Your task to perform on an android device: change the upload size in google photos Image 0: 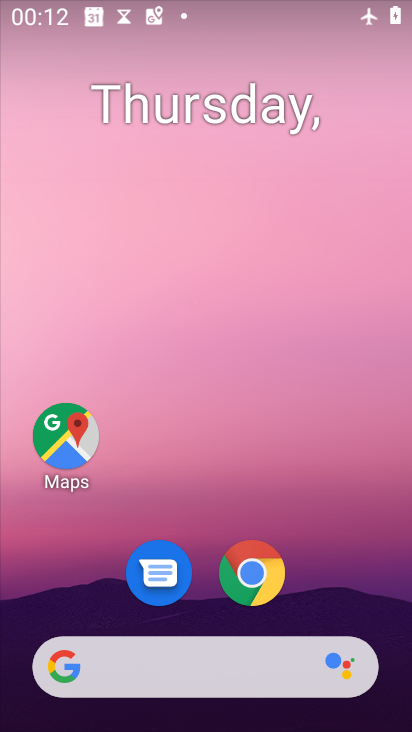
Step 0: drag from (327, 544) to (316, 174)
Your task to perform on an android device: change the upload size in google photos Image 1: 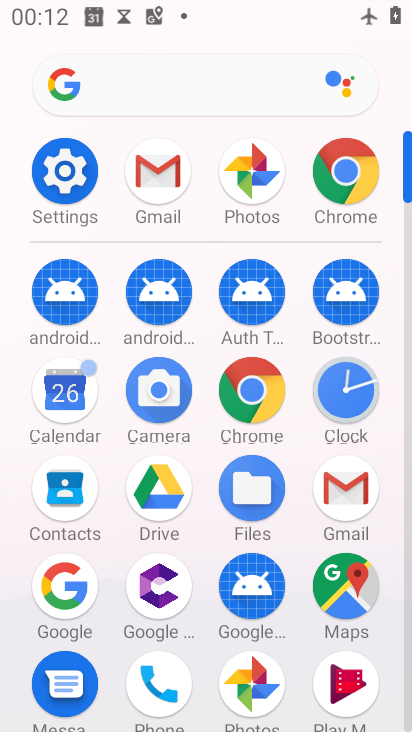
Step 1: click (242, 684)
Your task to perform on an android device: change the upload size in google photos Image 2: 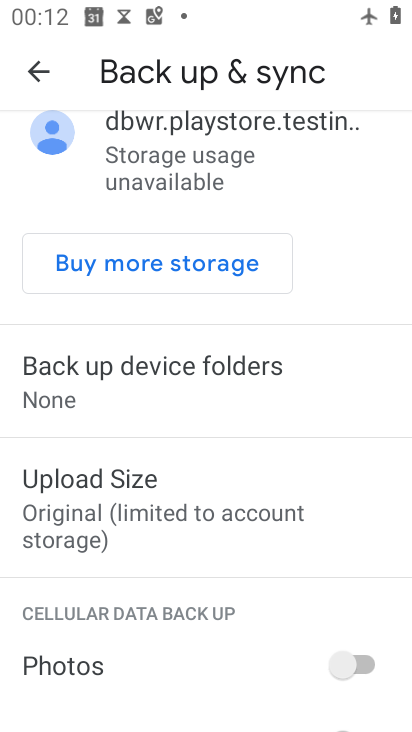
Step 2: click (182, 517)
Your task to perform on an android device: change the upload size in google photos Image 3: 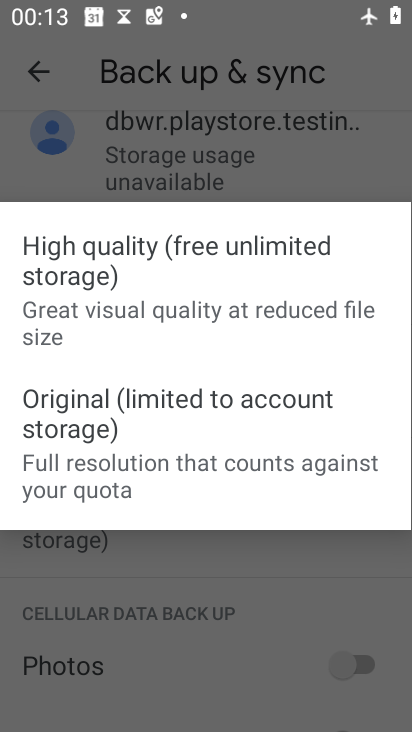
Step 3: click (148, 280)
Your task to perform on an android device: change the upload size in google photos Image 4: 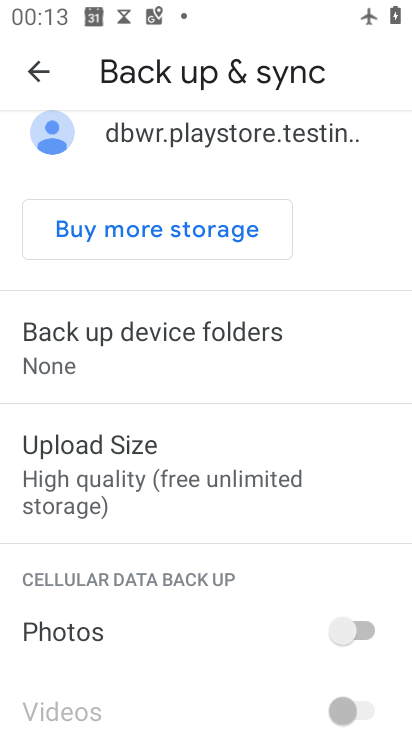
Step 4: task complete